Your task to perform on an android device: Search for pizza restaurants on Maps Image 0: 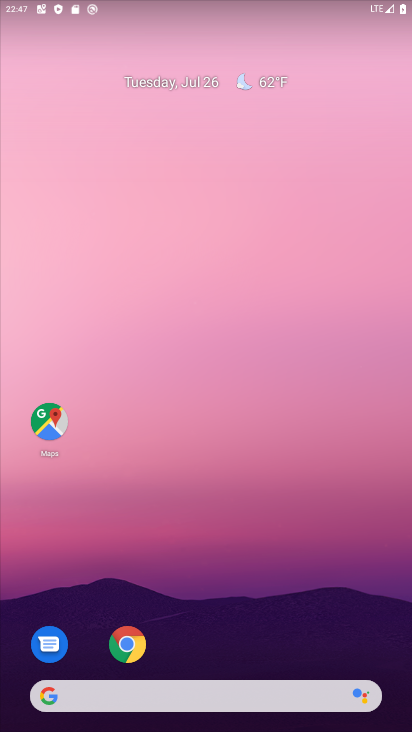
Step 0: click (38, 440)
Your task to perform on an android device: Search for pizza restaurants on Maps Image 1: 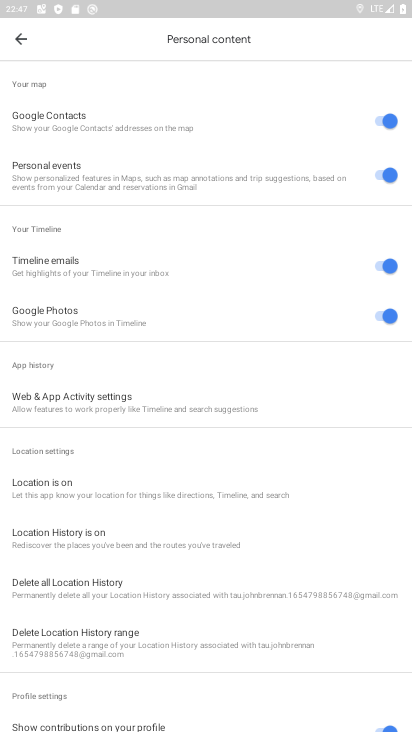
Step 1: click (22, 37)
Your task to perform on an android device: Search for pizza restaurants on Maps Image 2: 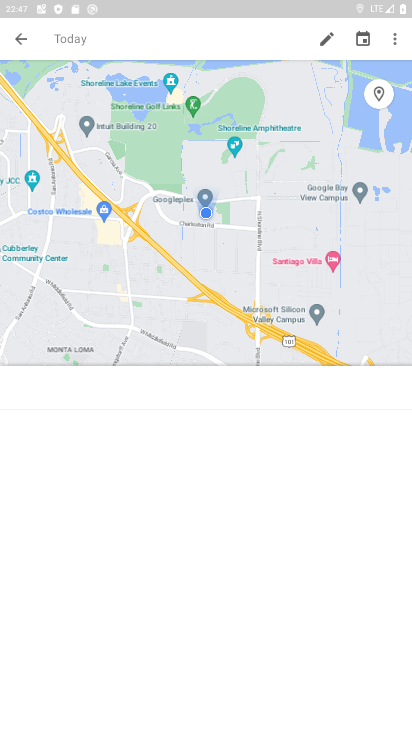
Step 2: click (25, 37)
Your task to perform on an android device: Search for pizza restaurants on Maps Image 3: 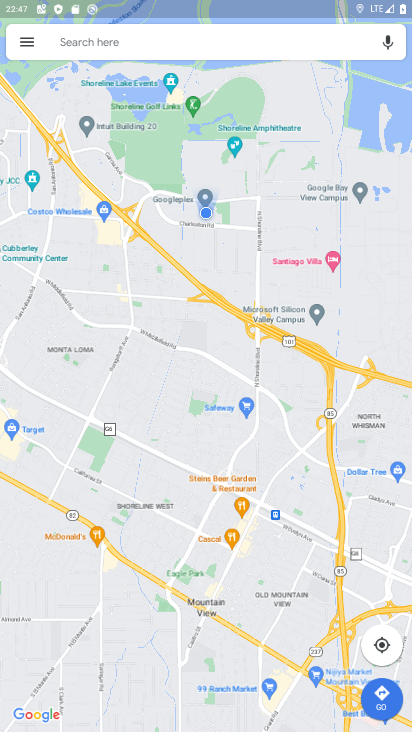
Step 3: click (109, 49)
Your task to perform on an android device: Search for pizza restaurants on Maps Image 4: 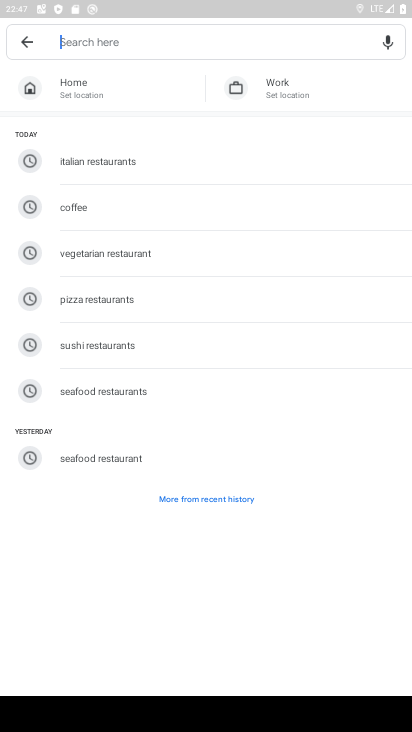
Step 4: type "pizza restaurants"
Your task to perform on an android device: Search for pizza restaurants on Maps Image 5: 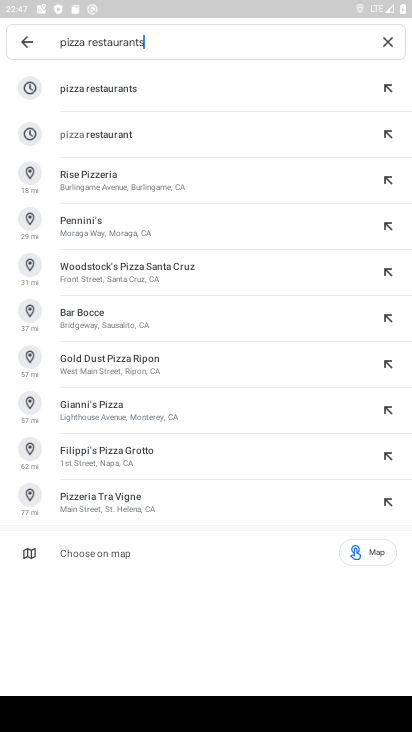
Step 5: click (110, 91)
Your task to perform on an android device: Search for pizza restaurants on Maps Image 6: 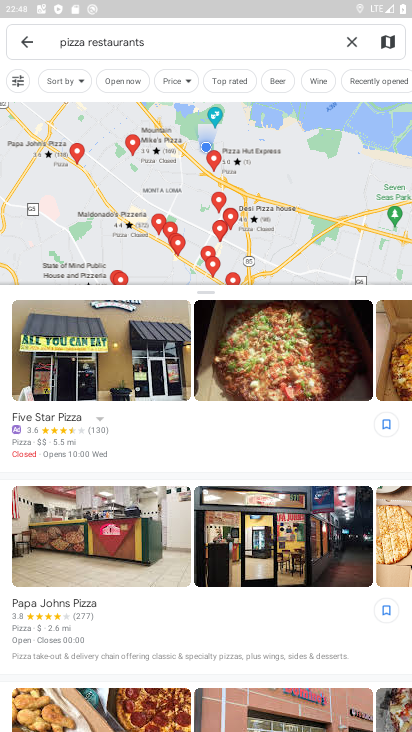
Step 6: task complete